Your task to perform on an android device: Open calendar and show me the third week of next month Image 0: 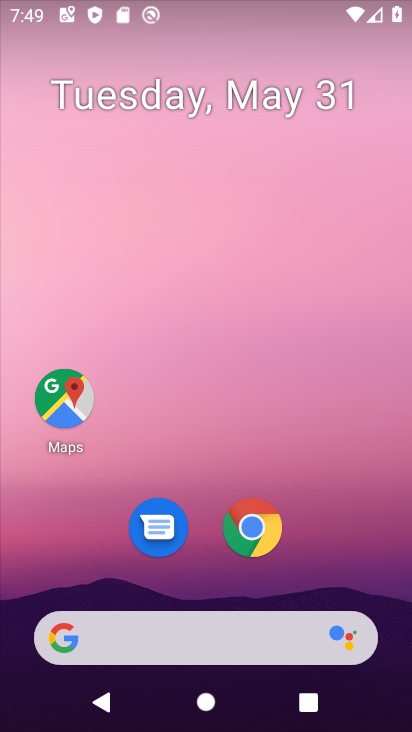
Step 0: drag from (322, 523) to (171, 27)
Your task to perform on an android device: Open calendar and show me the third week of next month Image 1: 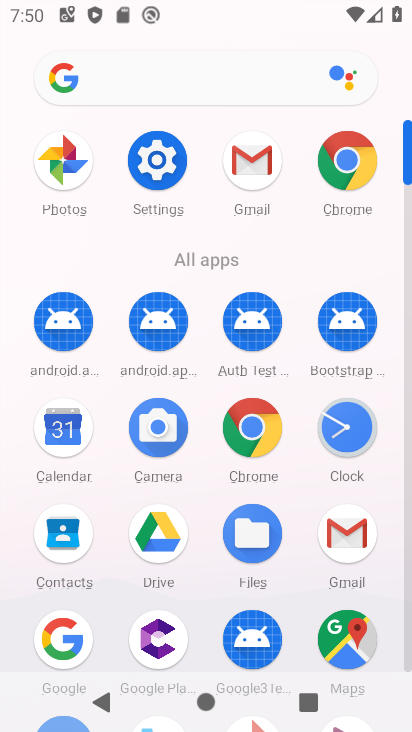
Step 1: click (68, 430)
Your task to perform on an android device: Open calendar and show me the third week of next month Image 2: 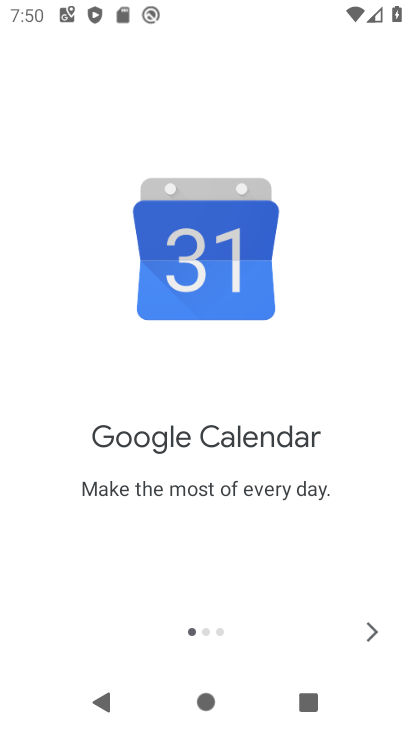
Step 2: click (370, 631)
Your task to perform on an android device: Open calendar and show me the third week of next month Image 3: 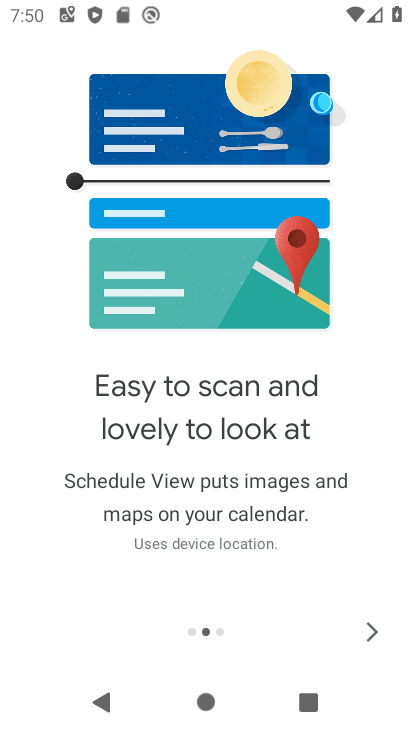
Step 3: click (370, 631)
Your task to perform on an android device: Open calendar and show me the third week of next month Image 4: 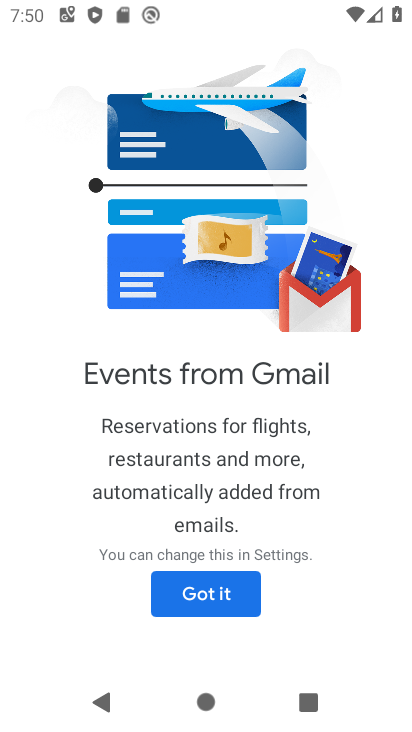
Step 4: click (218, 592)
Your task to perform on an android device: Open calendar and show me the third week of next month Image 5: 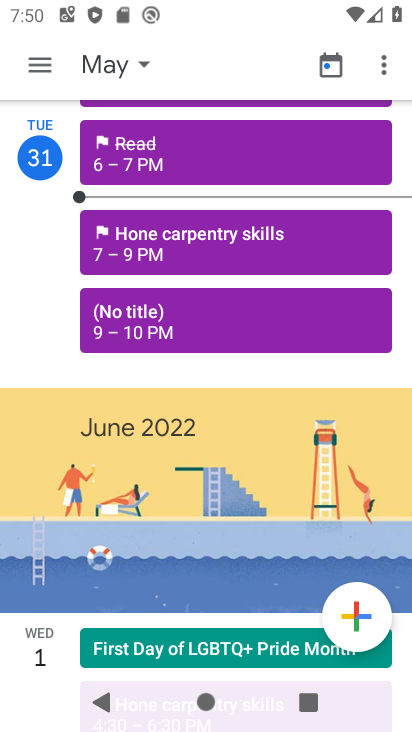
Step 5: click (43, 61)
Your task to perform on an android device: Open calendar and show me the third week of next month Image 6: 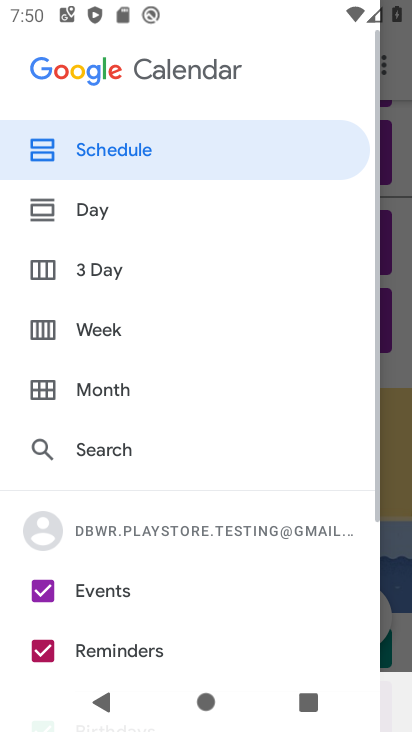
Step 6: click (93, 333)
Your task to perform on an android device: Open calendar and show me the third week of next month Image 7: 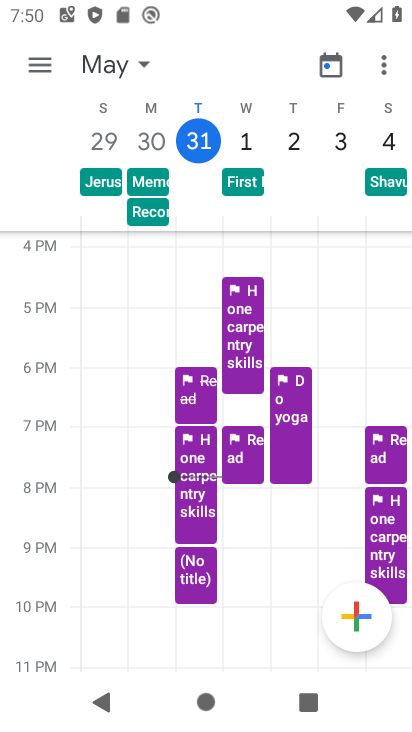
Step 7: click (147, 63)
Your task to perform on an android device: Open calendar and show me the third week of next month Image 8: 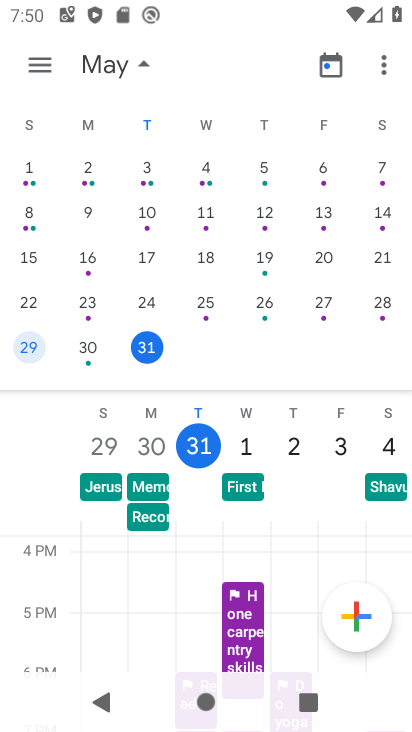
Step 8: drag from (379, 257) to (33, 260)
Your task to perform on an android device: Open calendar and show me the third week of next month Image 9: 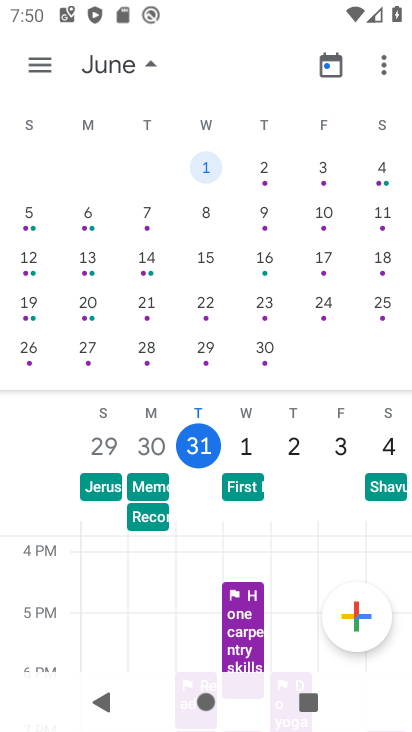
Step 9: click (206, 256)
Your task to perform on an android device: Open calendar and show me the third week of next month Image 10: 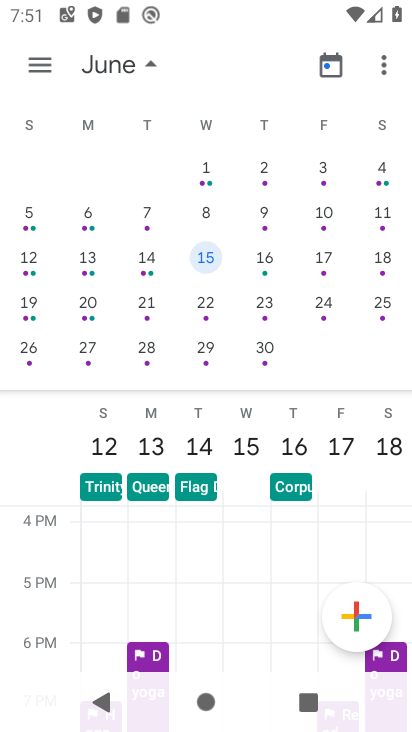
Step 10: task complete